Your task to perform on an android device: Go to Google maps Image 0: 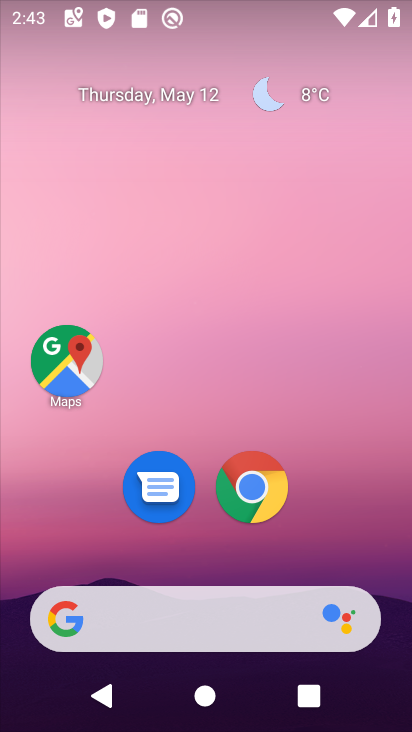
Step 0: drag from (360, 508) to (281, 84)
Your task to perform on an android device: Go to Google maps Image 1: 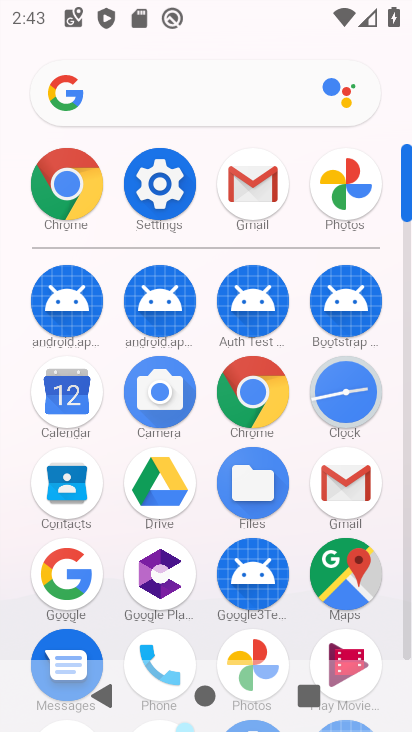
Step 1: click (333, 563)
Your task to perform on an android device: Go to Google maps Image 2: 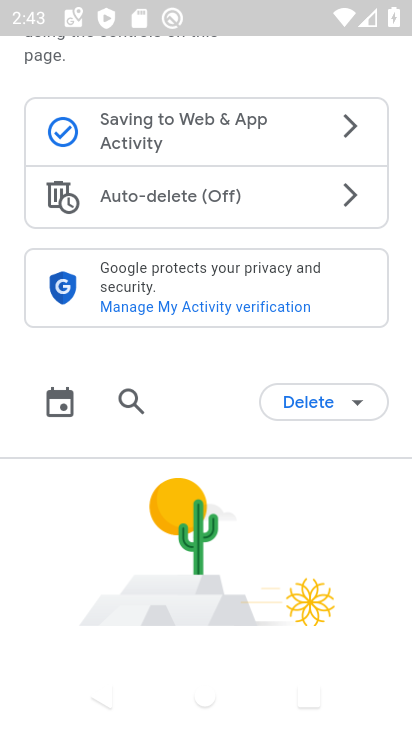
Step 2: task complete